Your task to perform on an android device: Open the phone app and click the voicemail tab. Image 0: 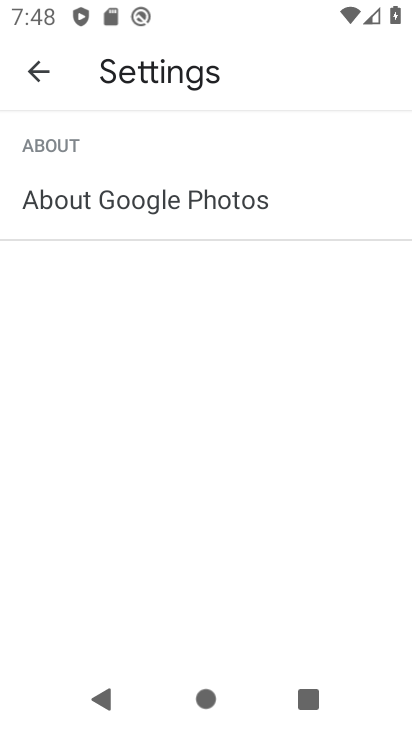
Step 0: press home button
Your task to perform on an android device: Open the phone app and click the voicemail tab. Image 1: 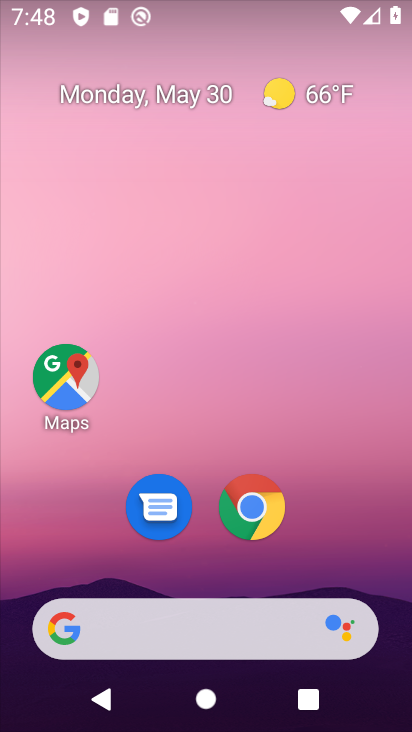
Step 1: drag from (325, 580) to (279, 173)
Your task to perform on an android device: Open the phone app and click the voicemail tab. Image 2: 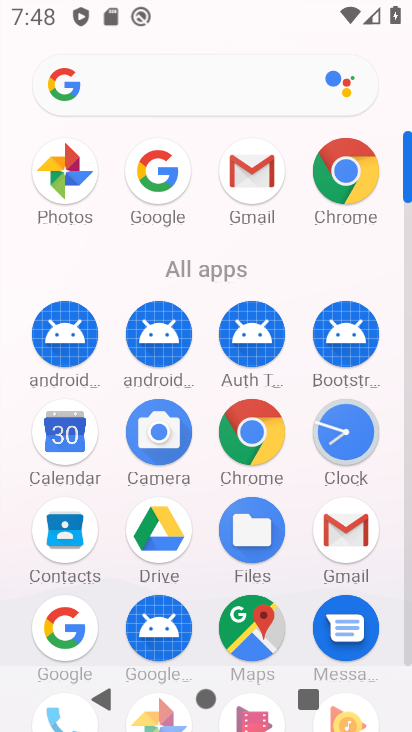
Step 2: drag from (302, 583) to (309, 252)
Your task to perform on an android device: Open the phone app and click the voicemail tab. Image 3: 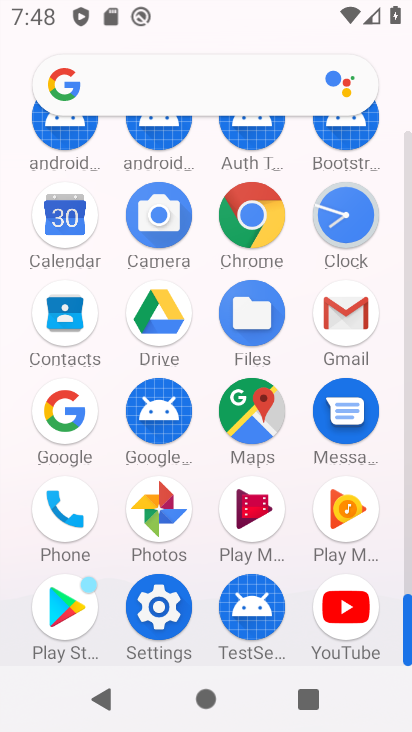
Step 3: click (65, 499)
Your task to perform on an android device: Open the phone app and click the voicemail tab. Image 4: 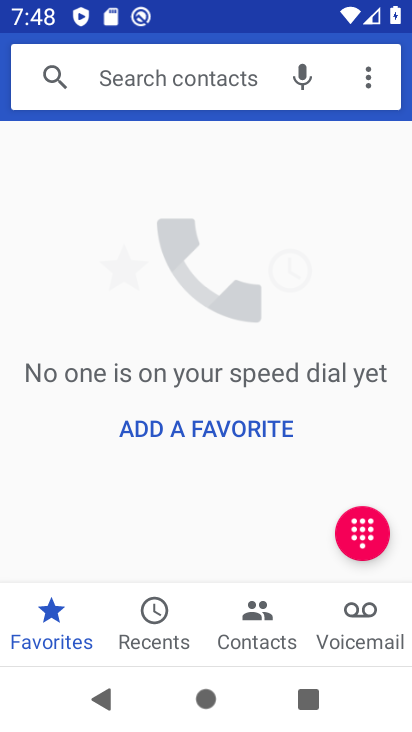
Step 4: click (363, 639)
Your task to perform on an android device: Open the phone app and click the voicemail tab. Image 5: 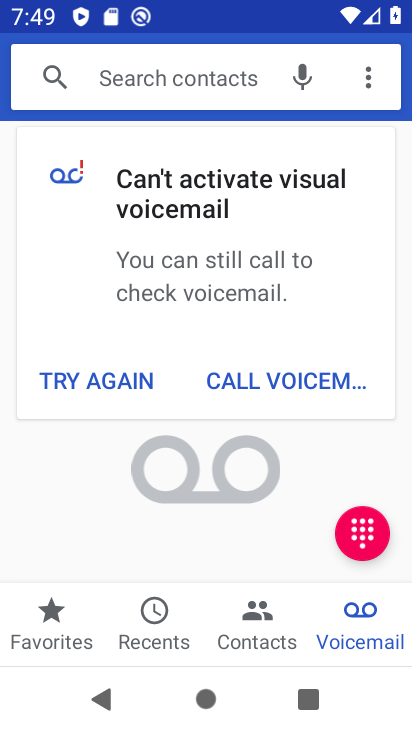
Step 5: task complete